Your task to perform on an android device: View the shopping cart on costco.com. Add razer blade to the cart on costco.com, then select checkout. Image 0: 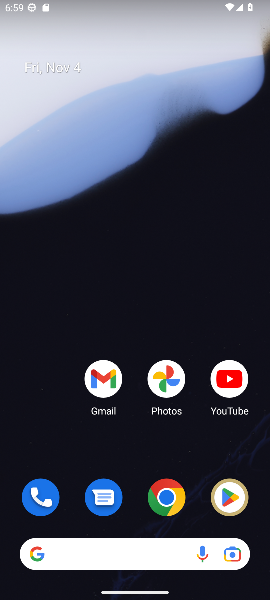
Step 0: click (167, 496)
Your task to perform on an android device: View the shopping cart on costco.com. Add razer blade to the cart on costco.com, then select checkout. Image 1: 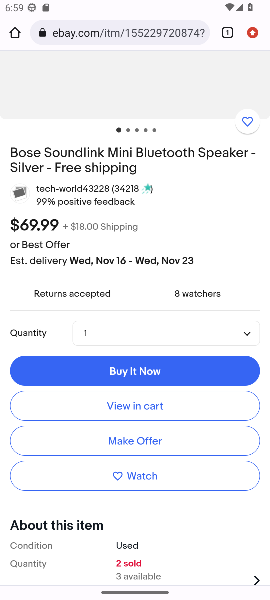
Step 1: click (117, 34)
Your task to perform on an android device: View the shopping cart on costco.com. Add razer blade to the cart on costco.com, then select checkout. Image 2: 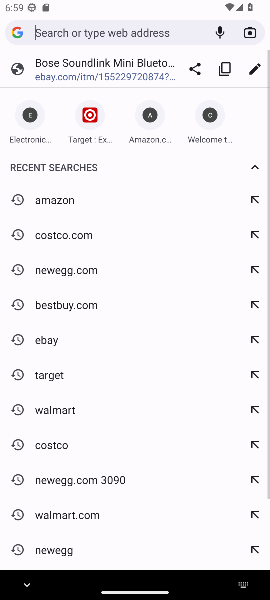
Step 2: click (71, 244)
Your task to perform on an android device: View the shopping cart on costco.com. Add razer blade to the cart on costco.com, then select checkout. Image 3: 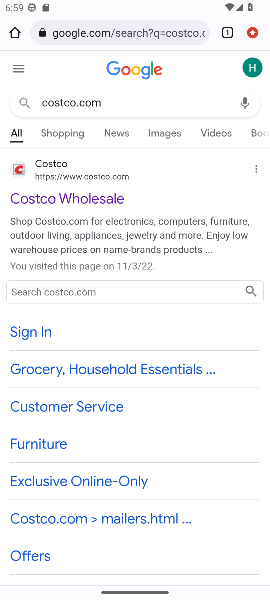
Step 3: click (63, 200)
Your task to perform on an android device: View the shopping cart on costco.com. Add razer blade to the cart on costco.com, then select checkout. Image 4: 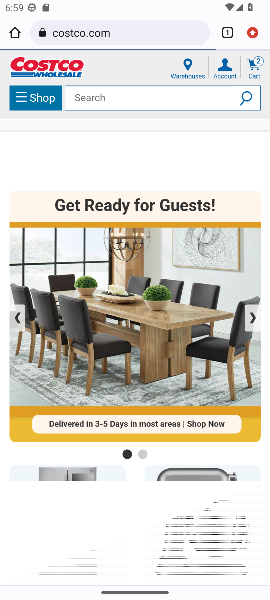
Step 4: click (247, 68)
Your task to perform on an android device: View the shopping cart on costco.com. Add razer blade to the cart on costco.com, then select checkout. Image 5: 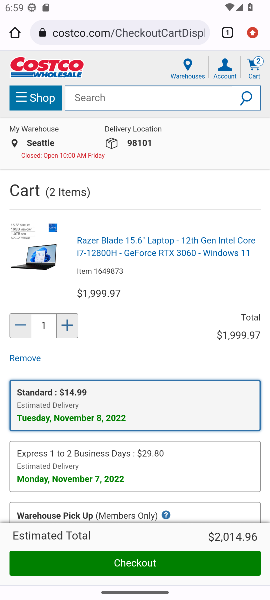
Step 5: click (123, 101)
Your task to perform on an android device: View the shopping cart on costco.com. Add razer blade to the cart on costco.com, then select checkout. Image 6: 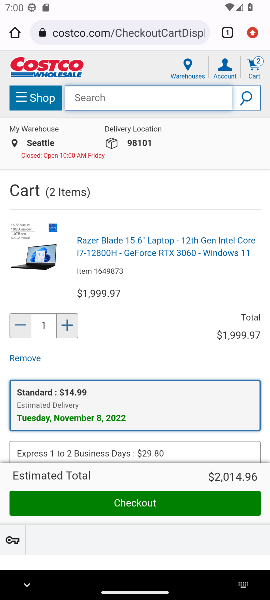
Step 6: type "razer blade"
Your task to perform on an android device: View the shopping cart on costco.com. Add razer blade to the cart on costco.com, then select checkout. Image 7: 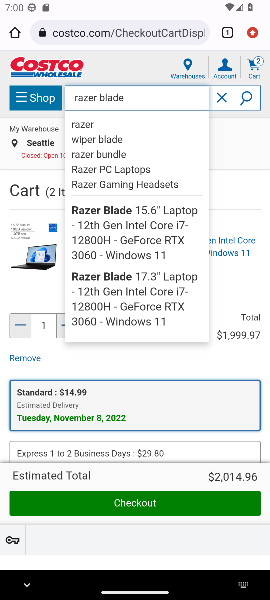
Step 7: click (246, 95)
Your task to perform on an android device: View the shopping cart on costco.com. Add razer blade to the cart on costco.com, then select checkout. Image 8: 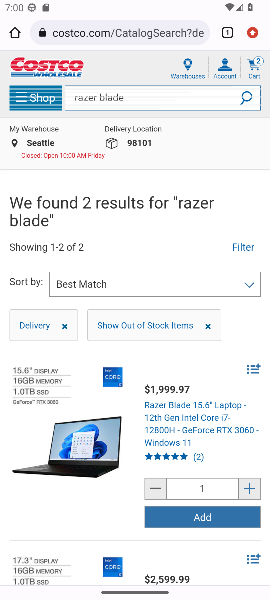
Step 8: click (199, 519)
Your task to perform on an android device: View the shopping cart on costco.com. Add razer blade to the cart on costco.com, then select checkout. Image 9: 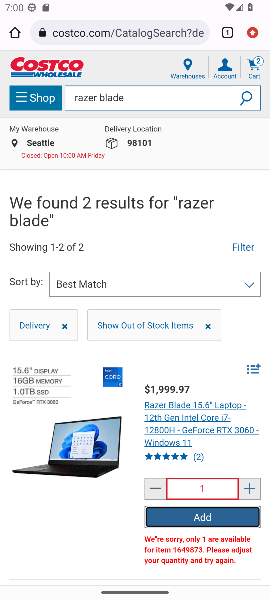
Step 9: drag from (118, 483) to (114, 312)
Your task to perform on an android device: View the shopping cart on costco.com. Add razer blade to the cart on costco.com, then select checkout. Image 10: 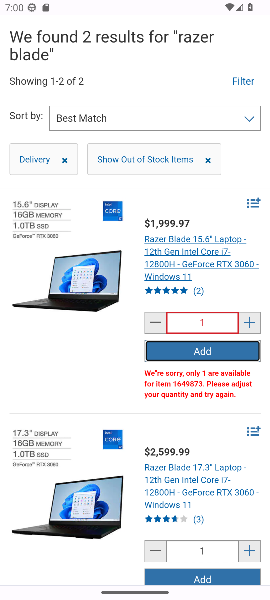
Step 10: click (87, 296)
Your task to perform on an android device: View the shopping cart on costco.com. Add razer blade to the cart on costco.com, then select checkout. Image 11: 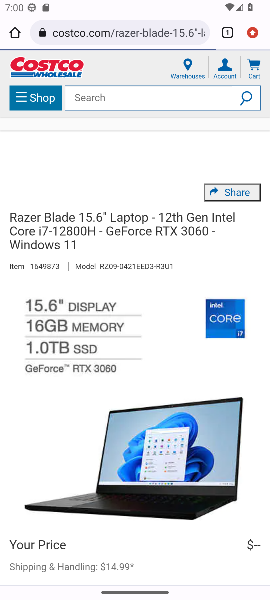
Step 11: drag from (119, 449) to (144, 241)
Your task to perform on an android device: View the shopping cart on costco.com. Add razer blade to the cart on costco.com, then select checkout. Image 12: 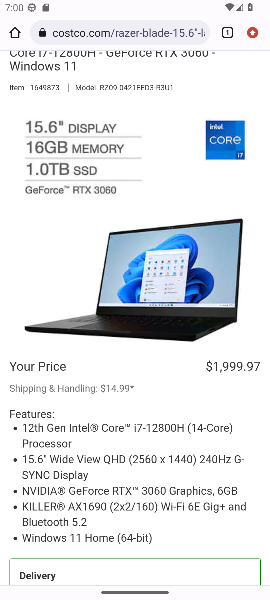
Step 12: drag from (158, 466) to (160, 247)
Your task to perform on an android device: View the shopping cart on costco.com. Add razer blade to the cart on costco.com, then select checkout. Image 13: 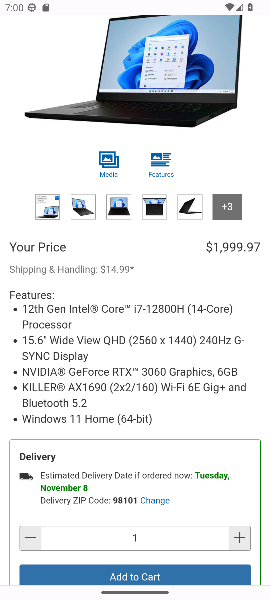
Step 13: drag from (154, 352) to (154, 517)
Your task to perform on an android device: View the shopping cart on costco.com. Add razer blade to the cart on costco.com, then select checkout. Image 14: 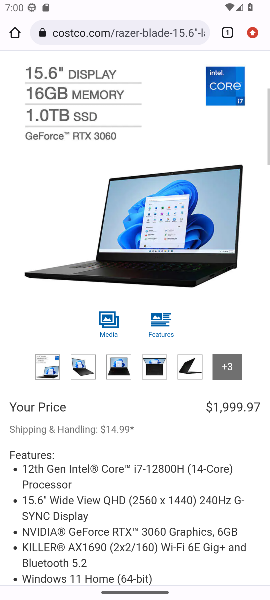
Step 14: drag from (154, 234) to (154, 479)
Your task to perform on an android device: View the shopping cart on costco.com. Add razer blade to the cart on costco.com, then select checkout. Image 15: 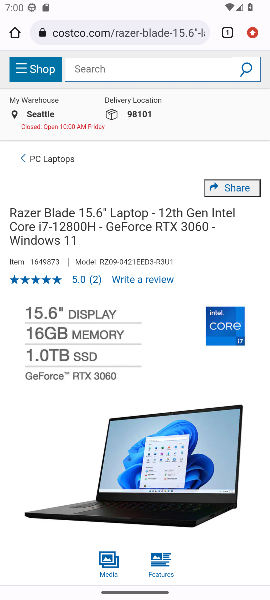
Step 15: drag from (177, 223) to (171, 466)
Your task to perform on an android device: View the shopping cart on costco.com. Add razer blade to the cart on costco.com, then select checkout. Image 16: 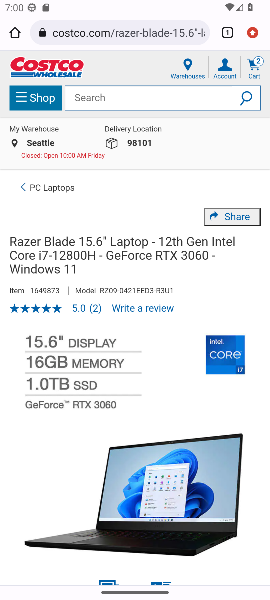
Step 16: click (256, 69)
Your task to perform on an android device: View the shopping cart on costco.com. Add razer blade to the cart on costco.com, then select checkout. Image 17: 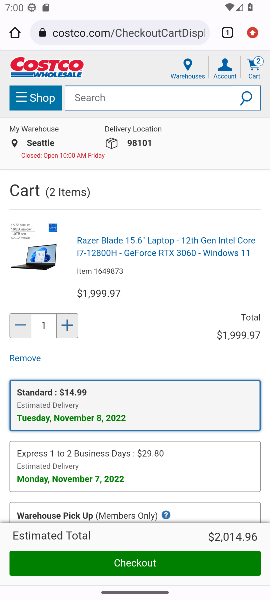
Step 17: click (135, 563)
Your task to perform on an android device: View the shopping cart on costco.com. Add razer blade to the cart on costco.com, then select checkout. Image 18: 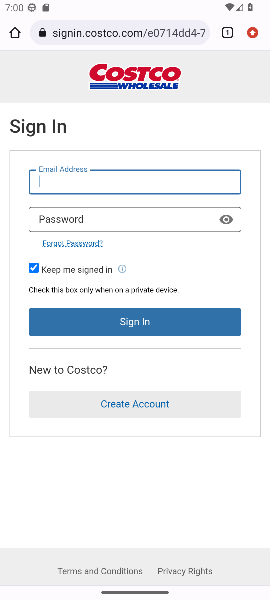
Step 18: task complete